Your task to perform on an android device: Open network settings Image 0: 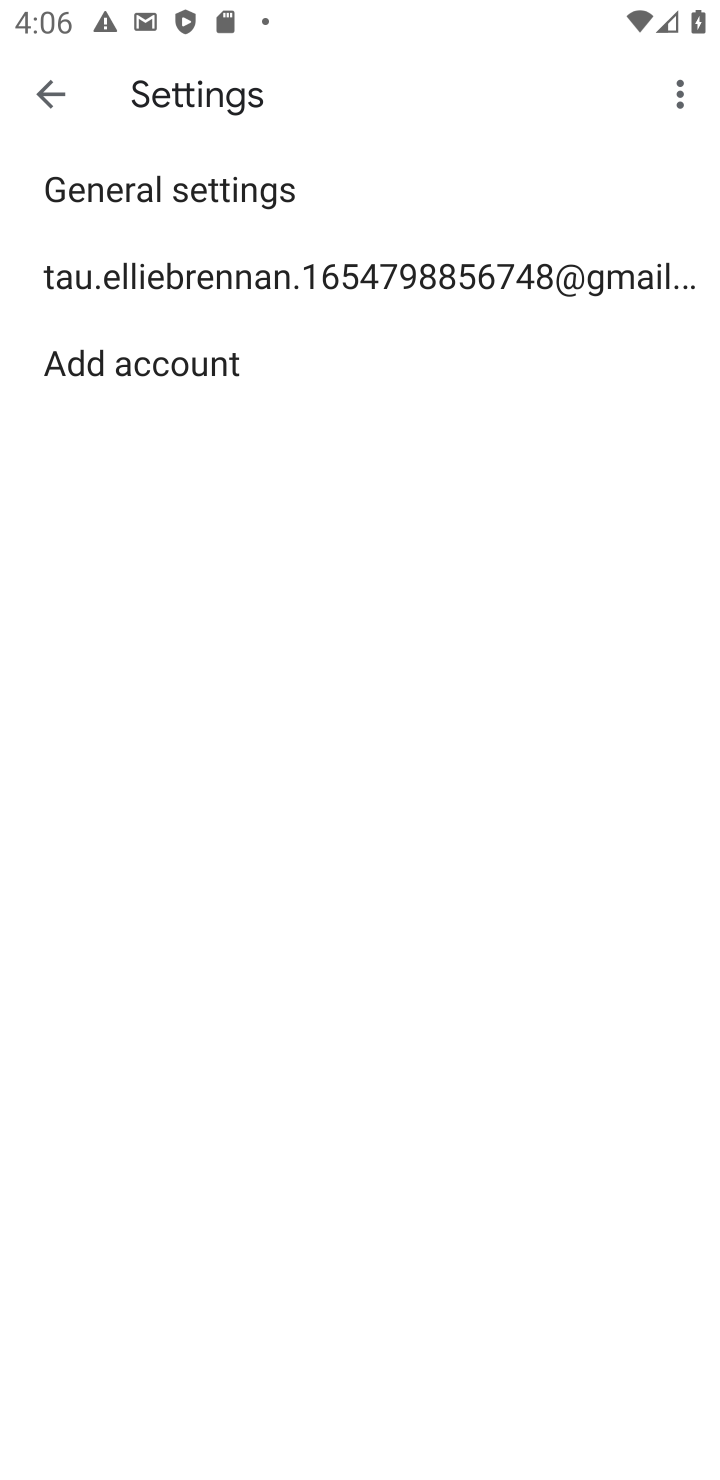
Step 0: press home button
Your task to perform on an android device: Open network settings Image 1: 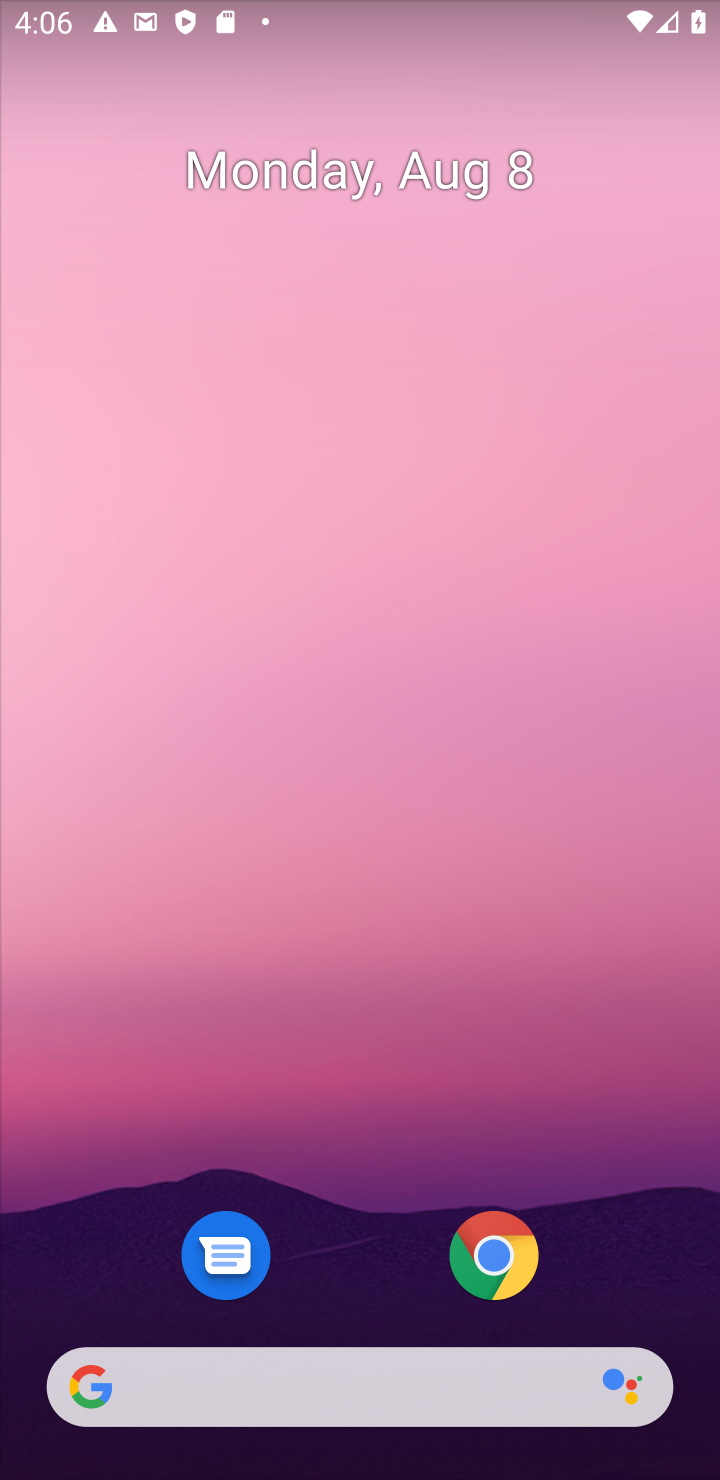
Step 1: drag from (320, 1388) to (571, 495)
Your task to perform on an android device: Open network settings Image 2: 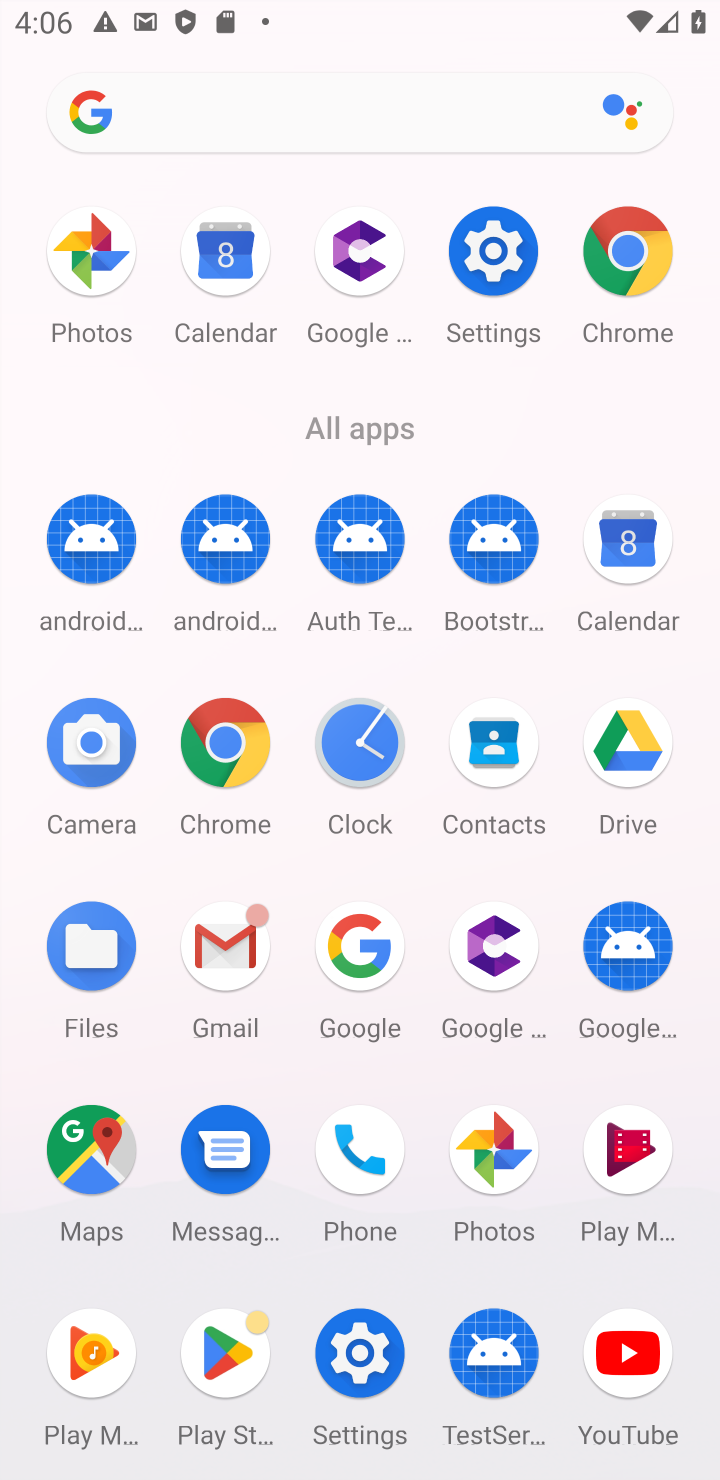
Step 2: click (494, 250)
Your task to perform on an android device: Open network settings Image 3: 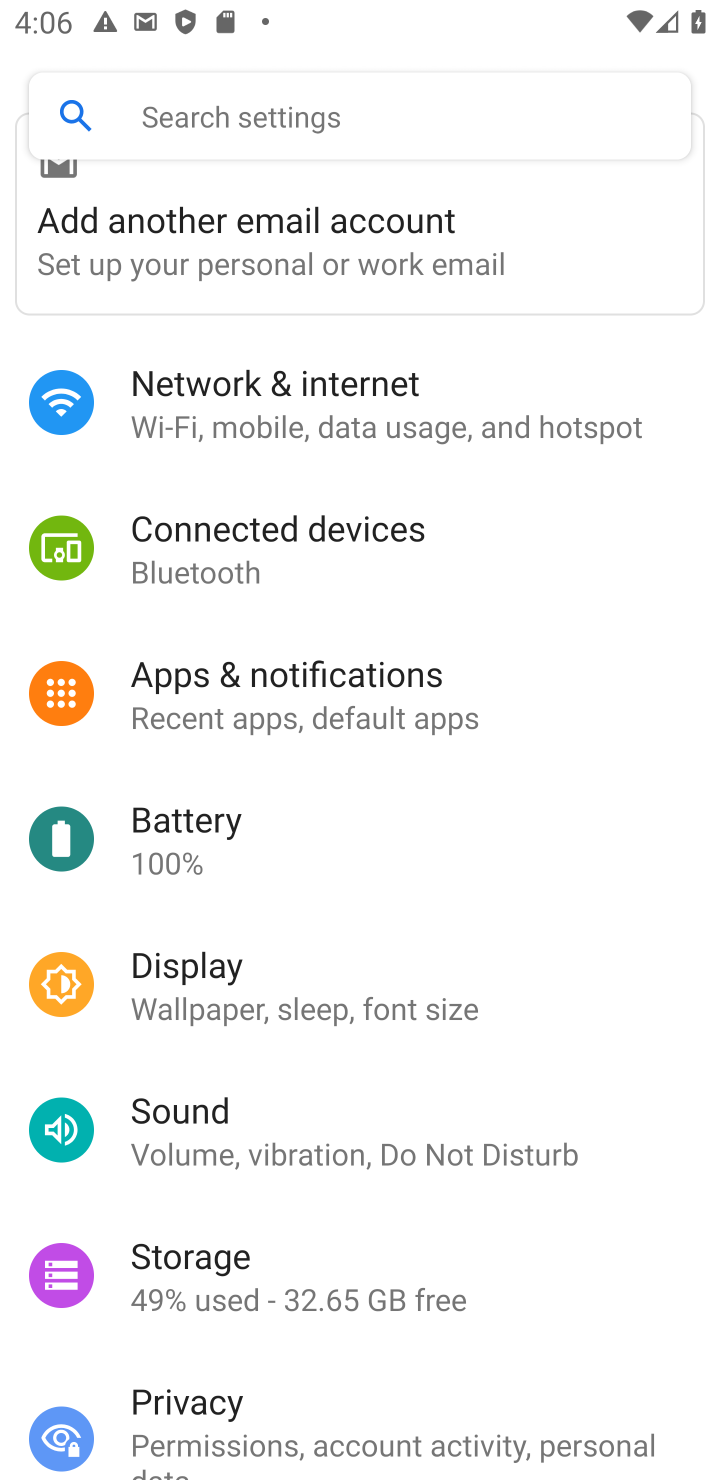
Step 3: click (261, 386)
Your task to perform on an android device: Open network settings Image 4: 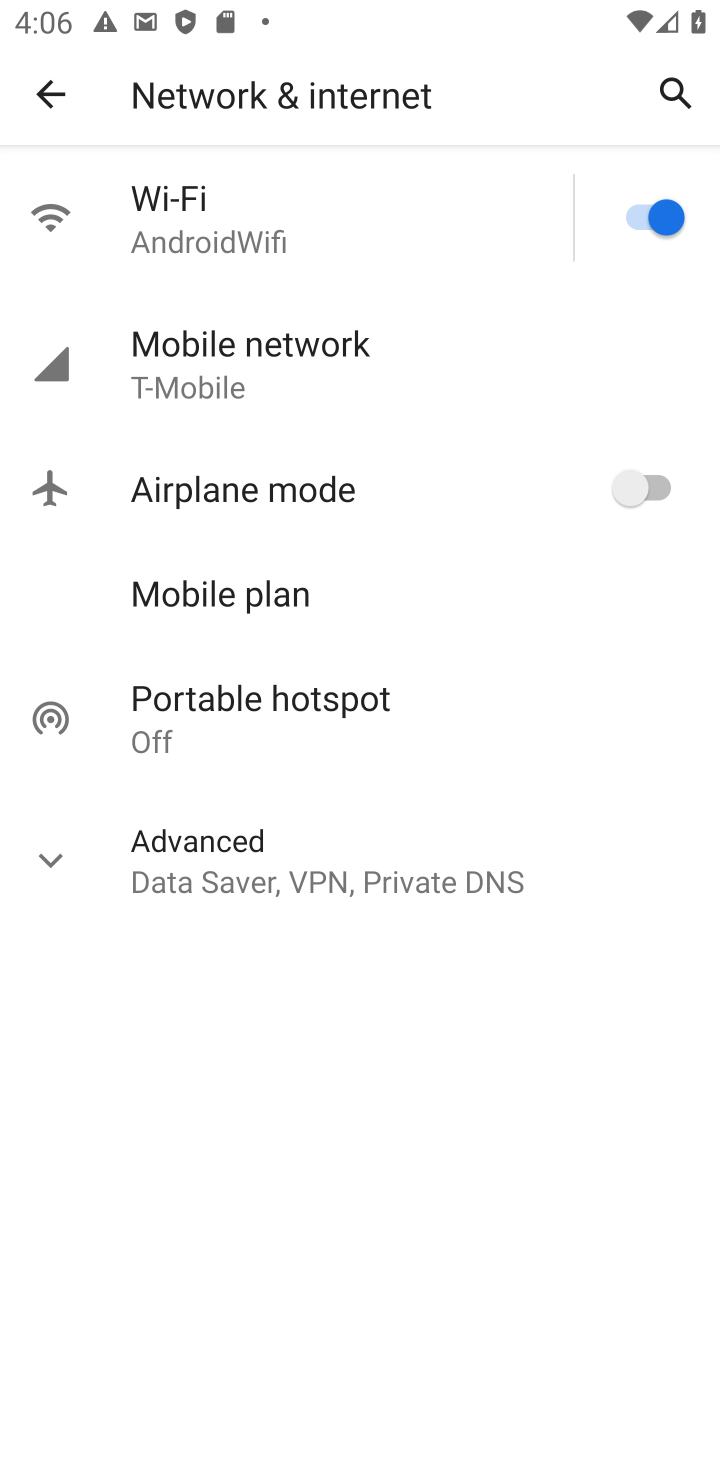
Step 4: task complete